Your task to perform on an android device: Set the phone to "Do not disturb". Image 0: 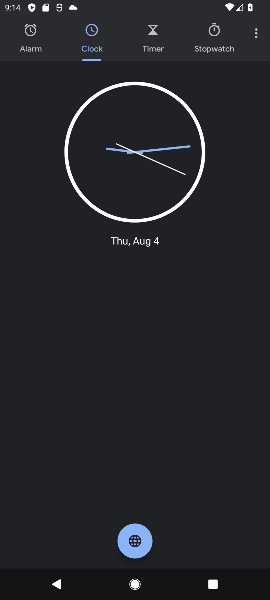
Step 0: drag from (129, 503) to (122, 180)
Your task to perform on an android device: Set the phone to "Do not disturb". Image 1: 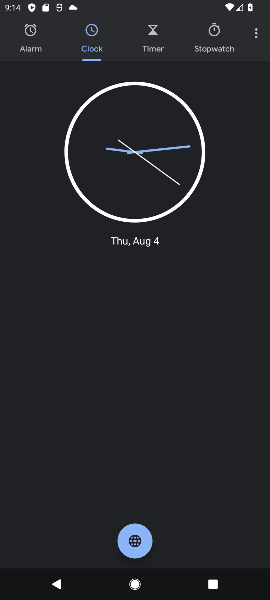
Step 1: press home button
Your task to perform on an android device: Set the phone to "Do not disturb". Image 2: 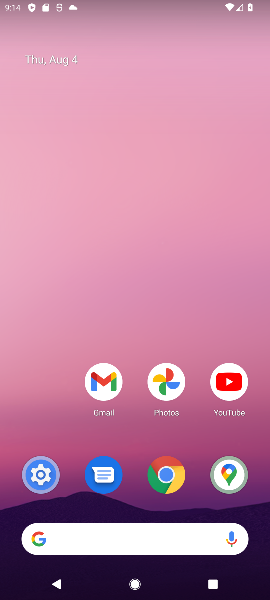
Step 2: drag from (199, 519) to (171, 260)
Your task to perform on an android device: Set the phone to "Do not disturb". Image 3: 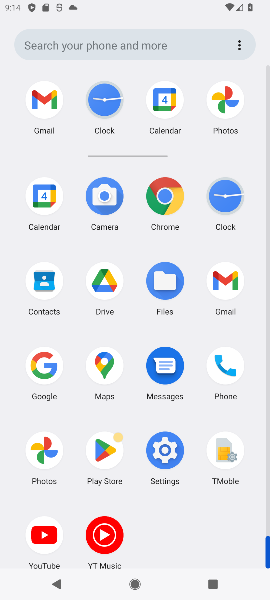
Step 3: drag from (174, 502) to (200, 175)
Your task to perform on an android device: Set the phone to "Do not disturb". Image 4: 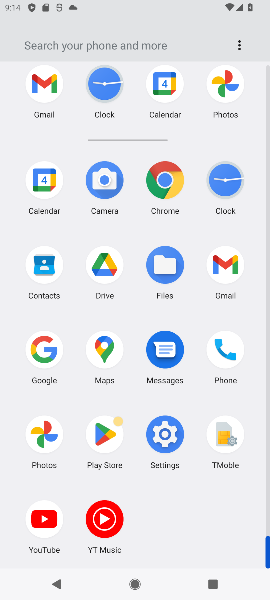
Step 4: click (157, 435)
Your task to perform on an android device: Set the phone to "Do not disturb". Image 5: 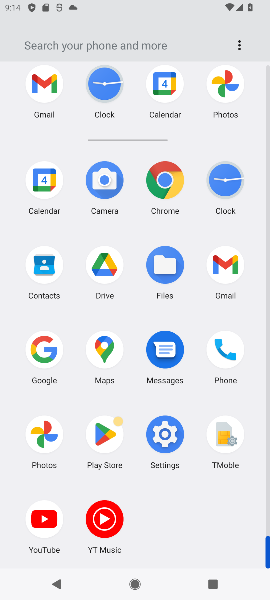
Step 5: click (157, 435)
Your task to perform on an android device: Set the phone to "Do not disturb". Image 6: 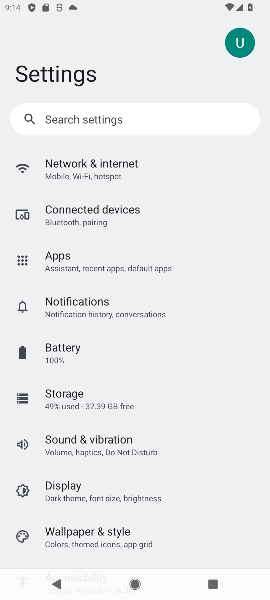
Step 6: drag from (146, 464) to (144, 157)
Your task to perform on an android device: Set the phone to "Do not disturb". Image 7: 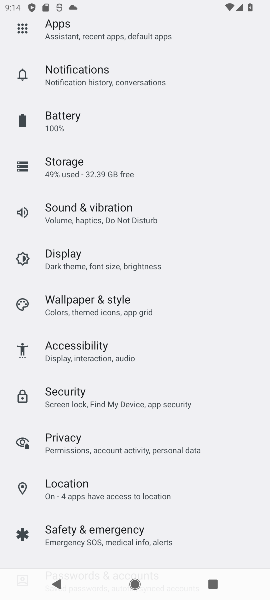
Step 7: drag from (130, 517) to (148, 216)
Your task to perform on an android device: Set the phone to "Do not disturb". Image 8: 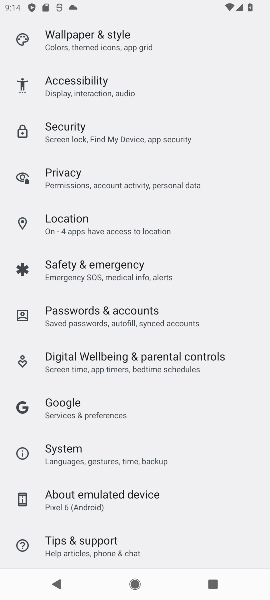
Step 8: drag from (135, 469) to (193, 62)
Your task to perform on an android device: Set the phone to "Do not disturb". Image 9: 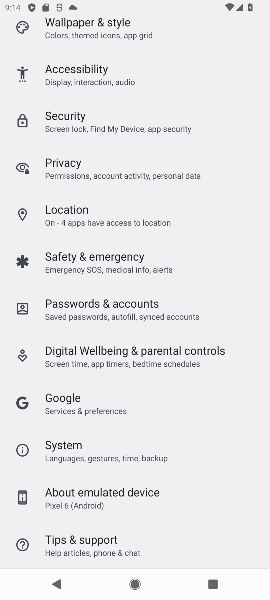
Step 9: drag from (160, 129) to (168, 573)
Your task to perform on an android device: Set the phone to "Do not disturb". Image 10: 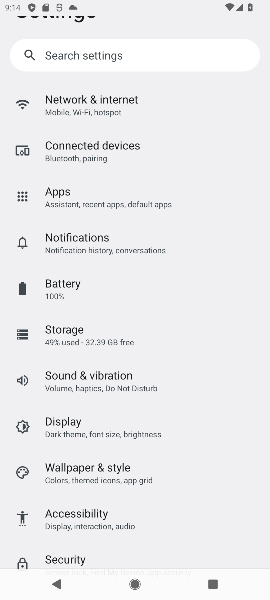
Step 10: drag from (161, 454) to (203, 189)
Your task to perform on an android device: Set the phone to "Do not disturb". Image 11: 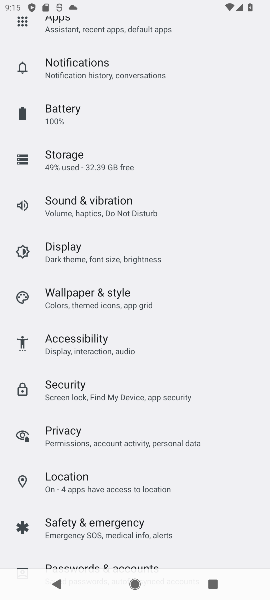
Step 11: drag from (122, 160) to (182, 434)
Your task to perform on an android device: Set the phone to "Do not disturb". Image 12: 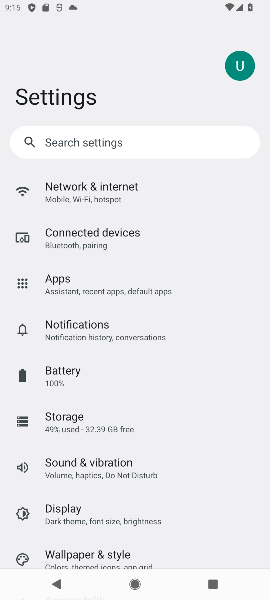
Step 12: drag from (110, 203) to (218, 502)
Your task to perform on an android device: Set the phone to "Do not disturb". Image 13: 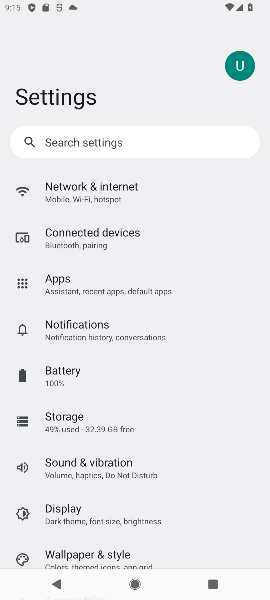
Step 13: drag from (160, 196) to (187, 520)
Your task to perform on an android device: Set the phone to "Do not disturb". Image 14: 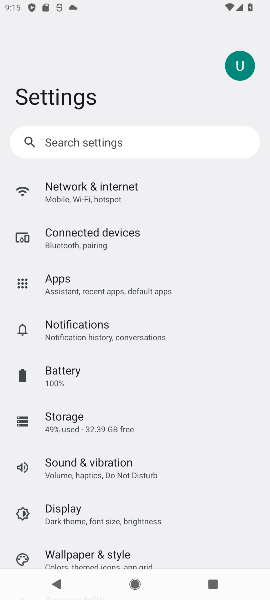
Step 14: drag from (143, 188) to (225, 475)
Your task to perform on an android device: Set the phone to "Do not disturb". Image 15: 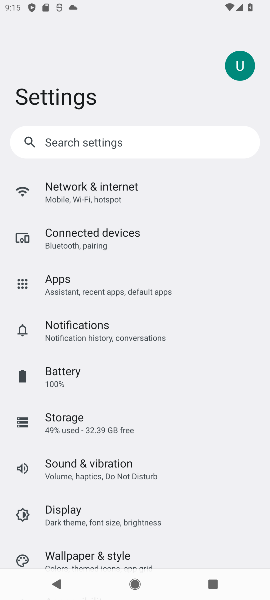
Step 15: drag from (175, 452) to (179, 256)
Your task to perform on an android device: Set the phone to "Do not disturb". Image 16: 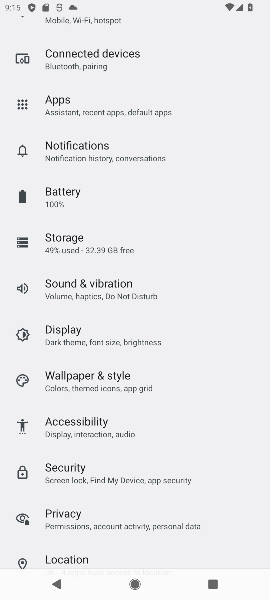
Step 16: drag from (161, 189) to (267, 504)
Your task to perform on an android device: Set the phone to "Do not disturb". Image 17: 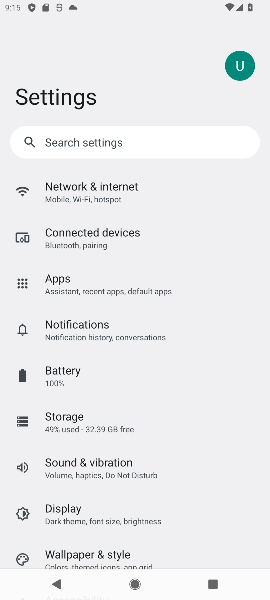
Step 17: drag from (131, 488) to (176, 221)
Your task to perform on an android device: Set the phone to "Do not disturb". Image 18: 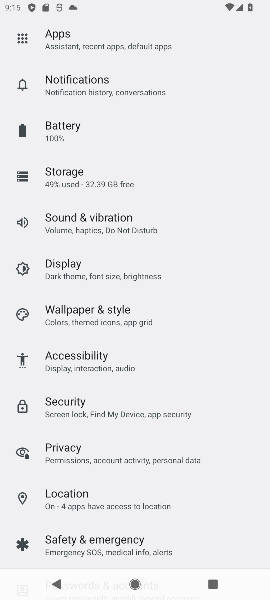
Step 18: drag from (155, 101) to (174, 522)
Your task to perform on an android device: Set the phone to "Do not disturb". Image 19: 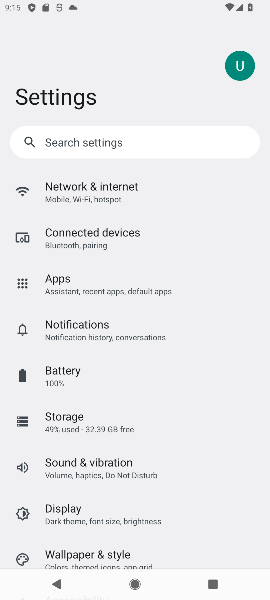
Step 19: click (107, 195)
Your task to perform on an android device: Set the phone to "Do not disturb". Image 20: 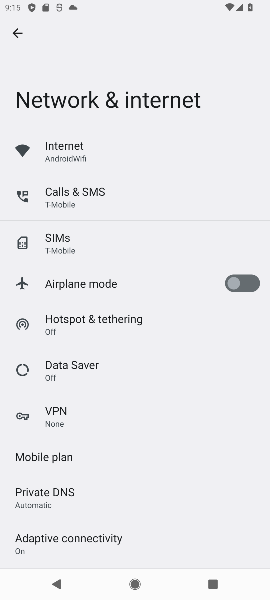
Step 20: press back button
Your task to perform on an android device: Set the phone to "Do not disturb". Image 21: 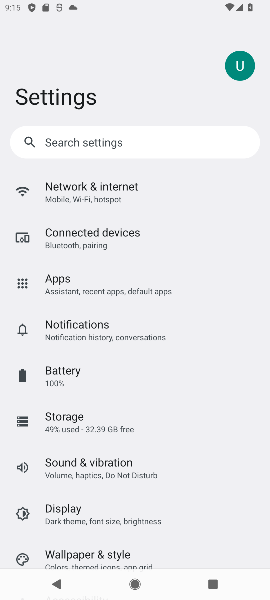
Step 21: click (114, 335)
Your task to perform on an android device: Set the phone to "Do not disturb". Image 22: 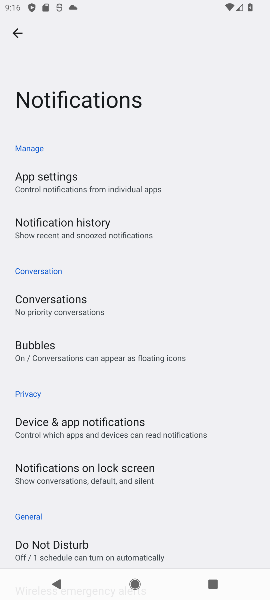
Step 22: drag from (118, 507) to (193, 181)
Your task to perform on an android device: Set the phone to "Do not disturb". Image 23: 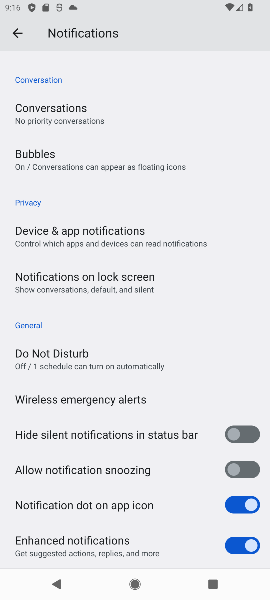
Step 23: drag from (106, 484) to (150, 282)
Your task to perform on an android device: Set the phone to "Do not disturb". Image 24: 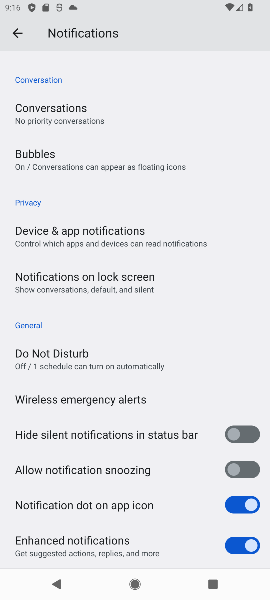
Step 24: drag from (140, 509) to (147, 279)
Your task to perform on an android device: Set the phone to "Do not disturb". Image 25: 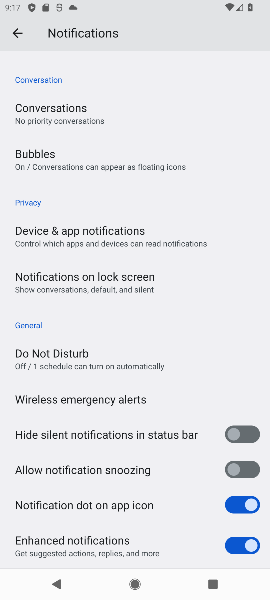
Step 25: drag from (121, 167) to (201, 550)
Your task to perform on an android device: Set the phone to "Do not disturb". Image 26: 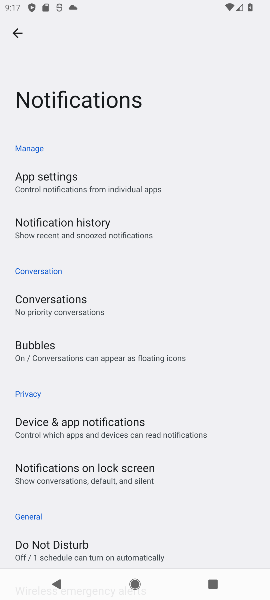
Step 26: click (69, 548)
Your task to perform on an android device: Set the phone to "Do not disturb". Image 27: 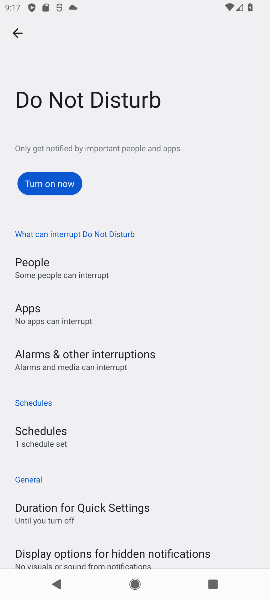
Step 27: click (40, 186)
Your task to perform on an android device: Set the phone to "Do not disturb". Image 28: 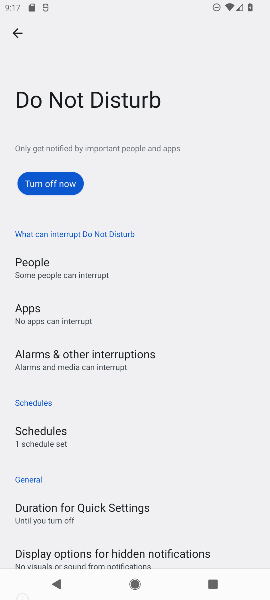
Step 28: task complete